Your task to perform on an android device: See recent photos Image 0: 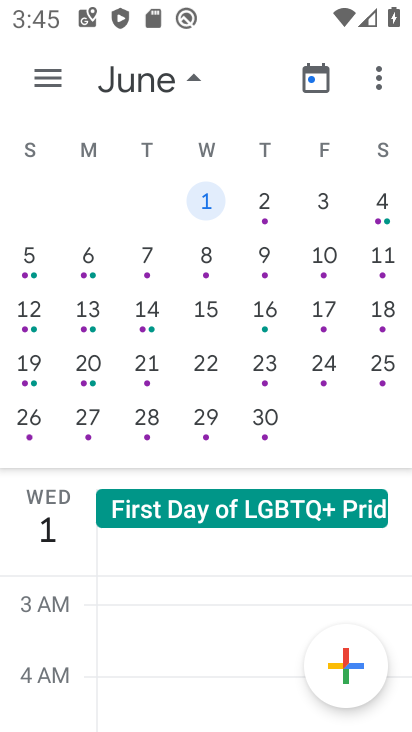
Step 0: press home button
Your task to perform on an android device: See recent photos Image 1: 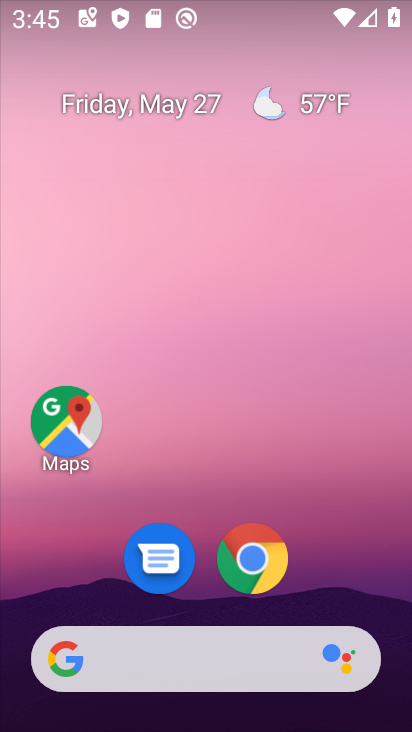
Step 1: drag from (372, 595) to (308, 23)
Your task to perform on an android device: See recent photos Image 2: 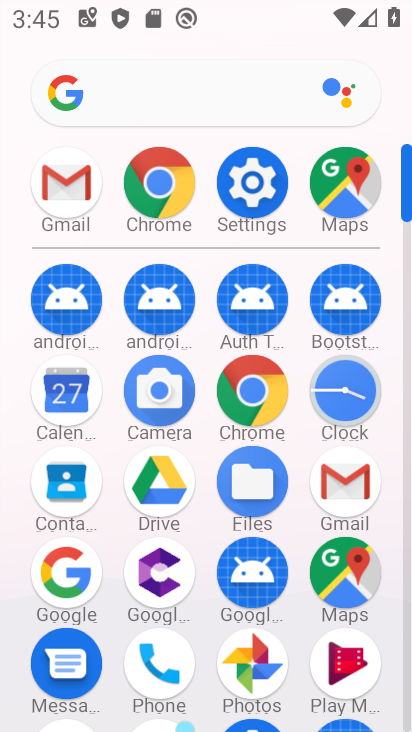
Step 2: click (263, 653)
Your task to perform on an android device: See recent photos Image 3: 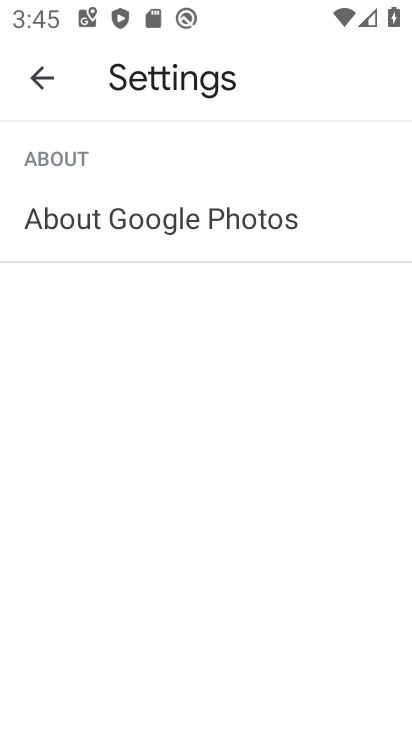
Step 3: task complete